Your task to perform on an android device: Go to location settings Image 0: 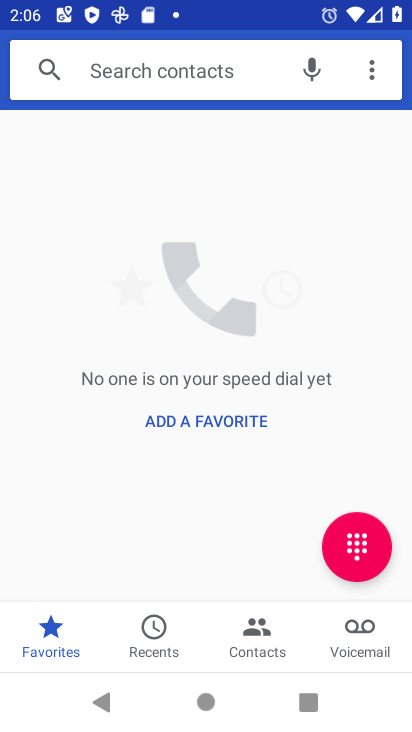
Step 0: press home button
Your task to perform on an android device: Go to location settings Image 1: 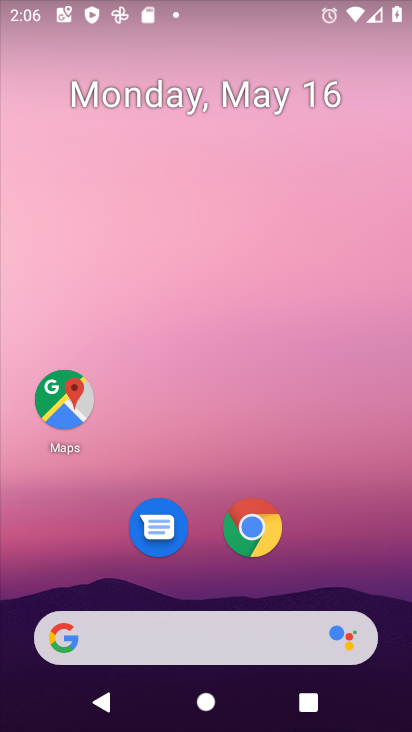
Step 1: drag from (321, 555) to (258, 100)
Your task to perform on an android device: Go to location settings Image 2: 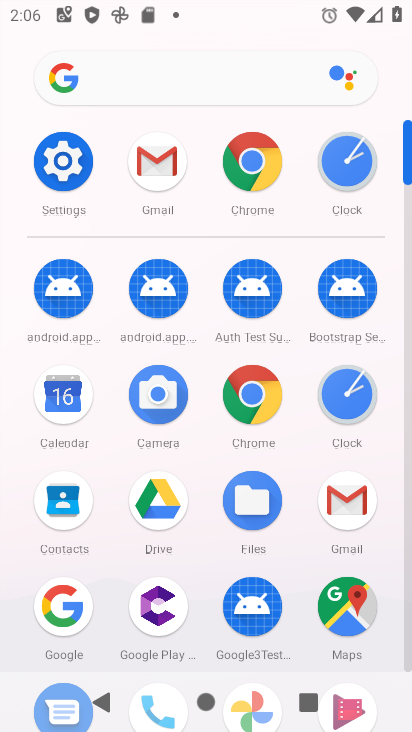
Step 2: click (72, 169)
Your task to perform on an android device: Go to location settings Image 3: 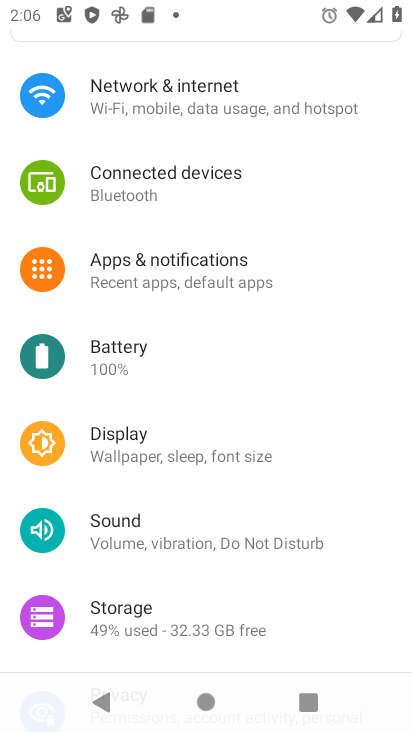
Step 3: drag from (182, 550) to (210, 223)
Your task to perform on an android device: Go to location settings Image 4: 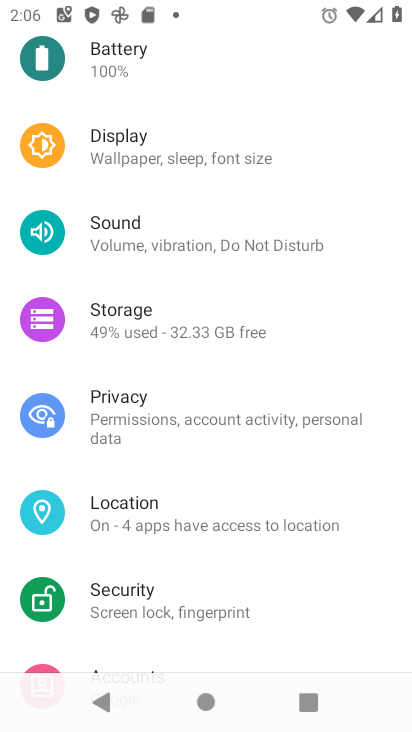
Step 4: click (264, 518)
Your task to perform on an android device: Go to location settings Image 5: 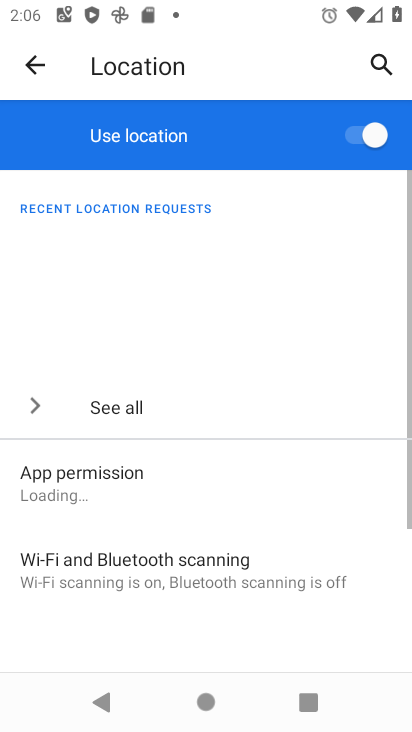
Step 5: task complete